Your task to perform on an android device: search for starred emails in the gmail app Image 0: 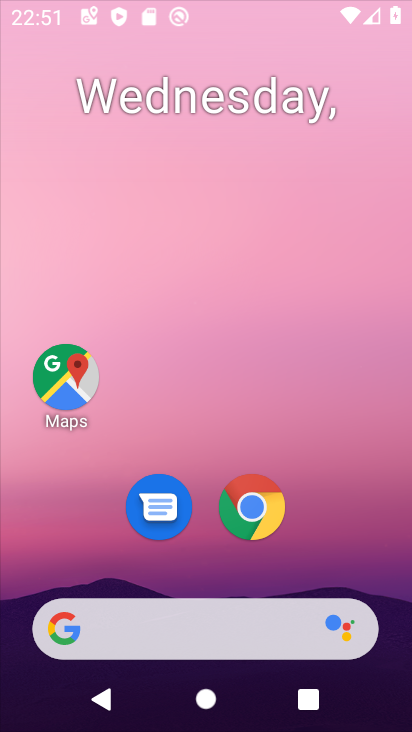
Step 0: click (316, 308)
Your task to perform on an android device: search for starred emails in the gmail app Image 1: 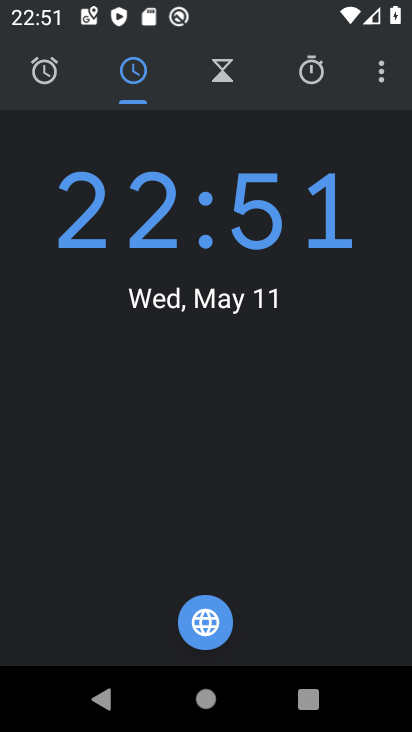
Step 1: press home button
Your task to perform on an android device: search for starred emails in the gmail app Image 2: 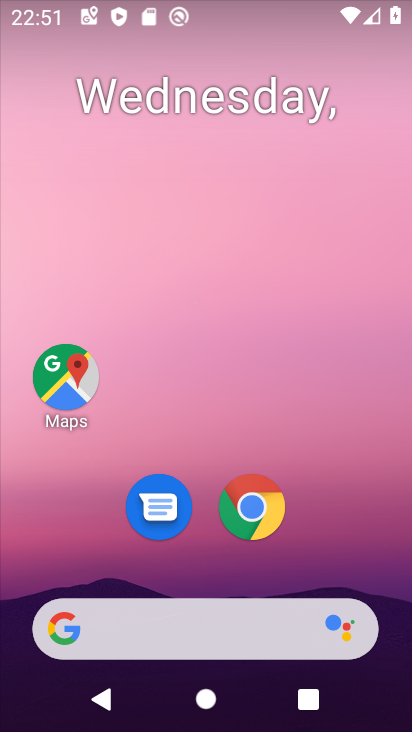
Step 2: drag from (310, 523) to (313, 191)
Your task to perform on an android device: search for starred emails in the gmail app Image 3: 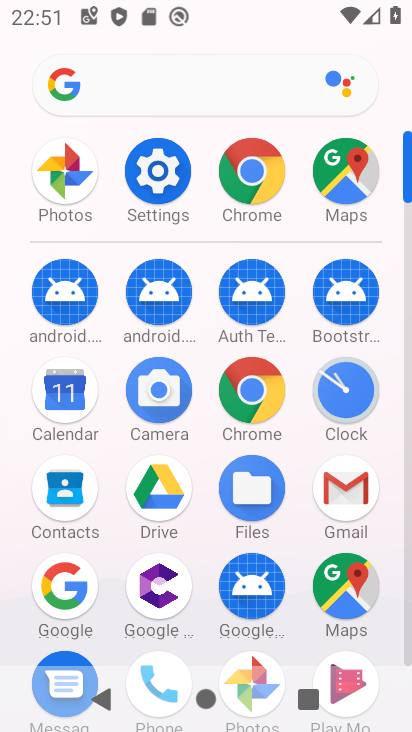
Step 3: click (338, 469)
Your task to perform on an android device: search for starred emails in the gmail app Image 4: 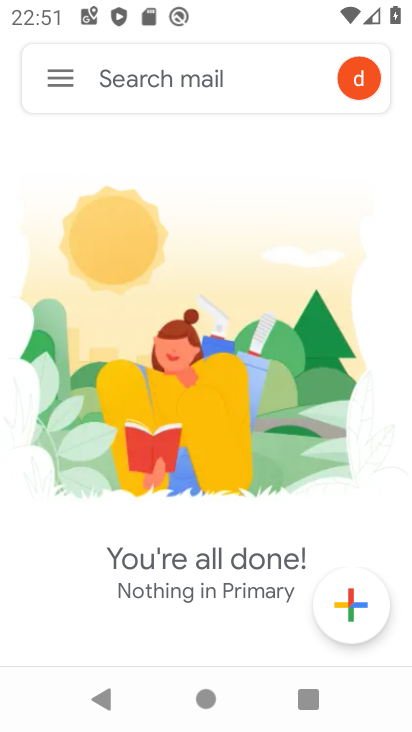
Step 4: click (52, 85)
Your task to perform on an android device: search for starred emails in the gmail app Image 5: 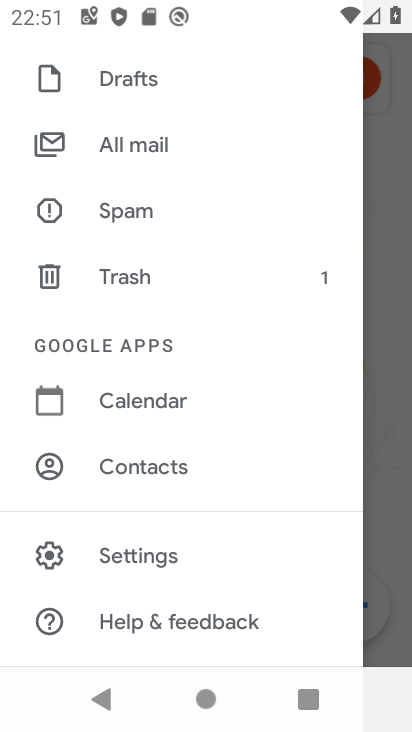
Step 5: drag from (196, 140) to (195, 507)
Your task to perform on an android device: search for starred emails in the gmail app Image 6: 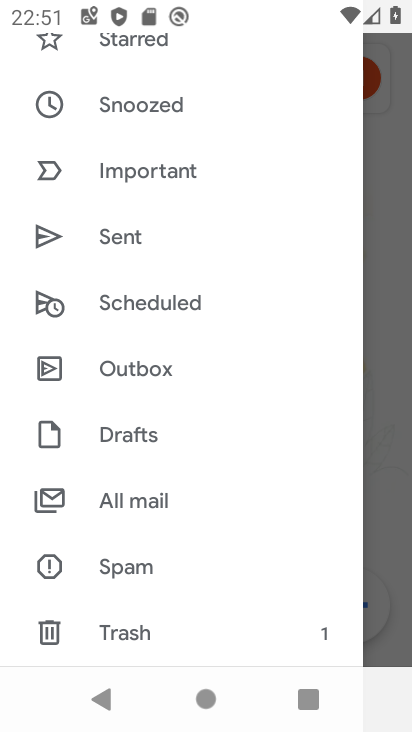
Step 6: drag from (154, 78) to (151, 342)
Your task to perform on an android device: search for starred emails in the gmail app Image 7: 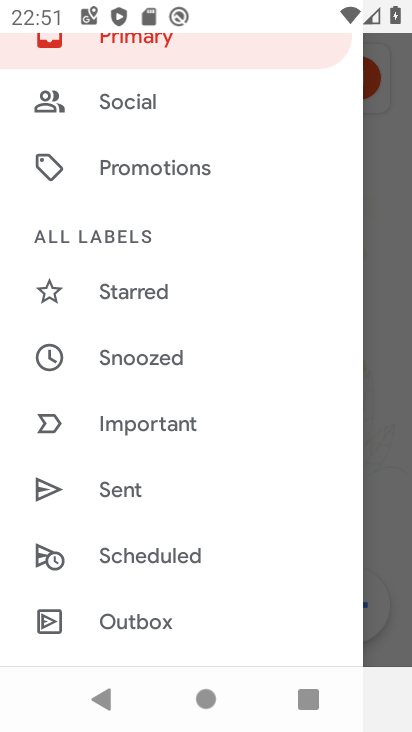
Step 7: click (130, 297)
Your task to perform on an android device: search for starred emails in the gmail app Image 8: 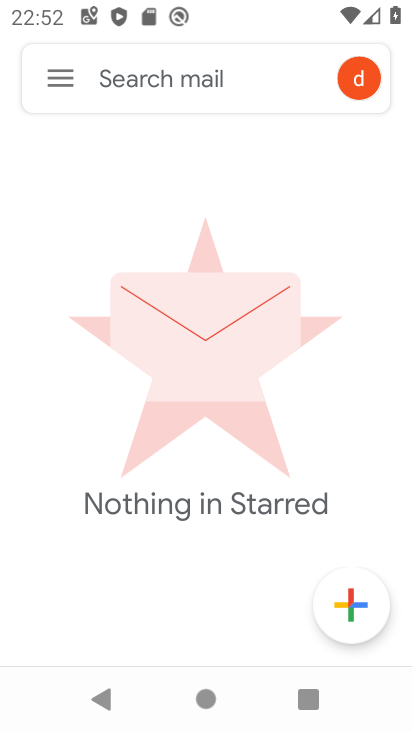
Step 8: task complete